Your task to perform on an android device: turn on the 24-hour format for clock Image 0: 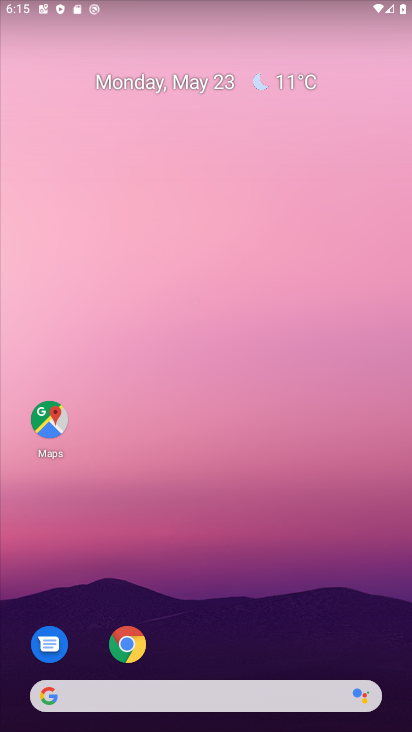
Step 0: drag from (265, 638) to (218, 190)
Your task to perform on an android device: turn on the 24-hour format for clock Image 1: 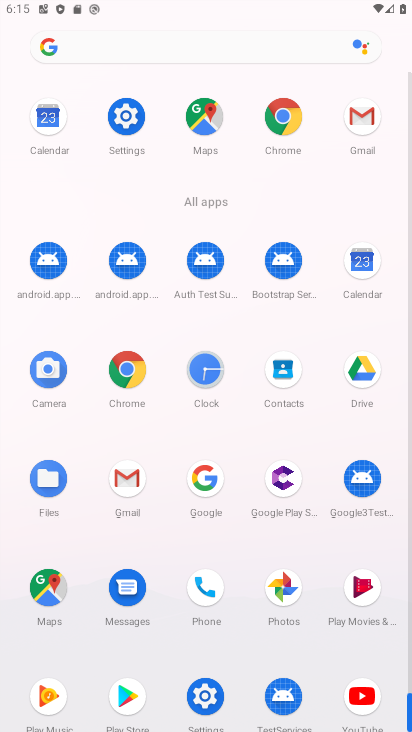
Step 1: click (196, 384)
Your task to perform on an android device: turn on the 24-hour format for clock Image 2: 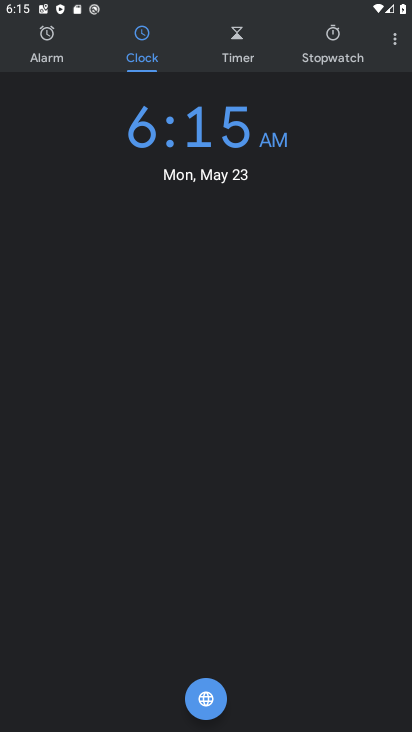
Step 2: click (396, 44)
Your task to perform on an android device: turn on the 24-hour format for clock Image 3: 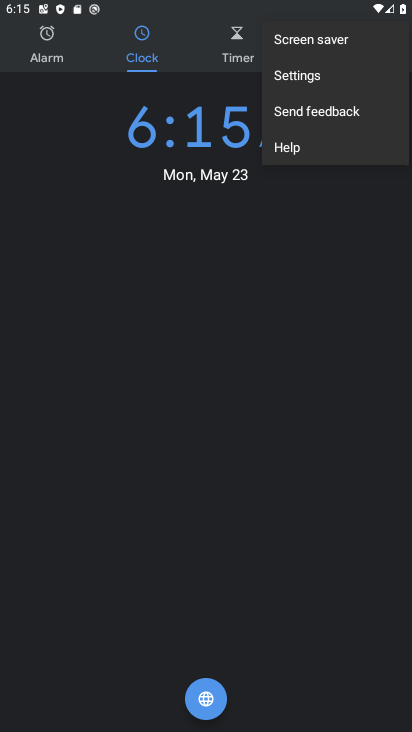
Step 3: click (311, 80)
Your task to perform on an android device: turn on the 24-hour format for clock Image 4: 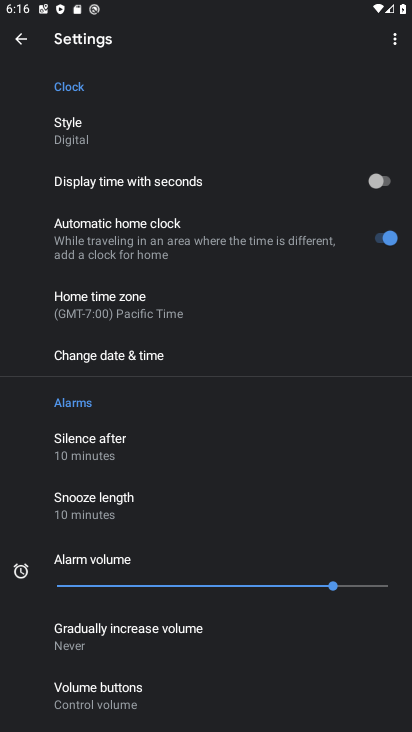
Step 4: click (134, 365)
Your task to perform on an android device: turn on the 24-hour format for clock Image 5: 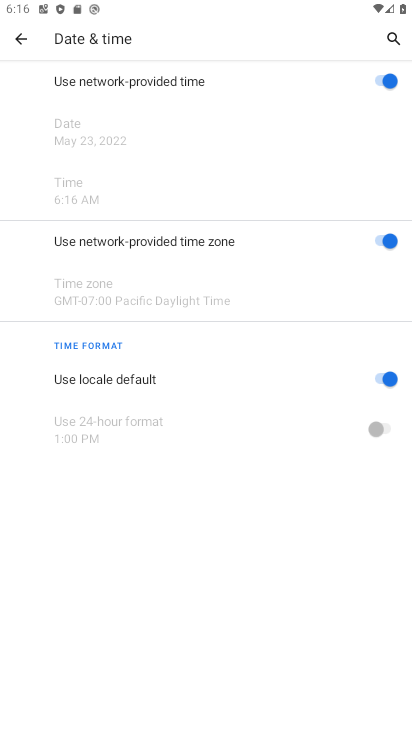
Step 5: click (382, 376)
Your task to perform on an android device: turn on the 24-hour format for clock Image 6: 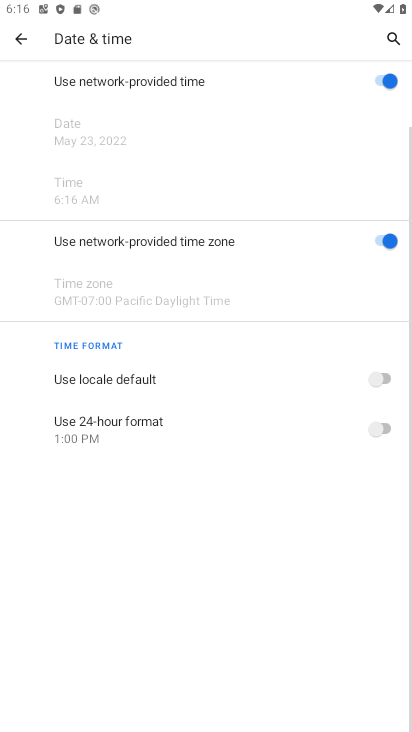
Step 6: click (384, 429)
Your task to perform on an android device: turn on the 24-hour format for clock Image 7: 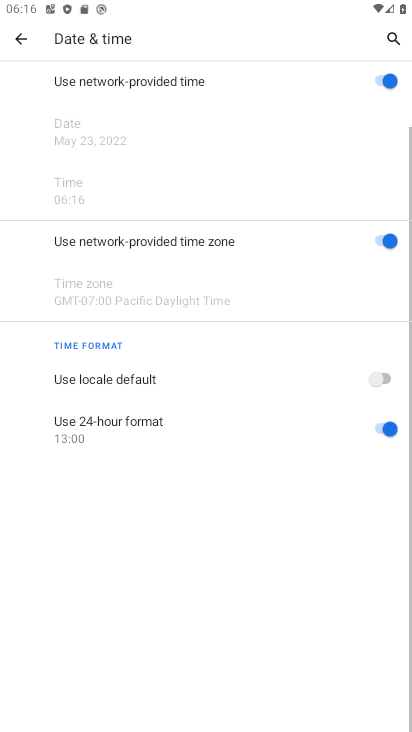
Step 7: task complete